Your task to perform on an android device: Go to settings Image 0: 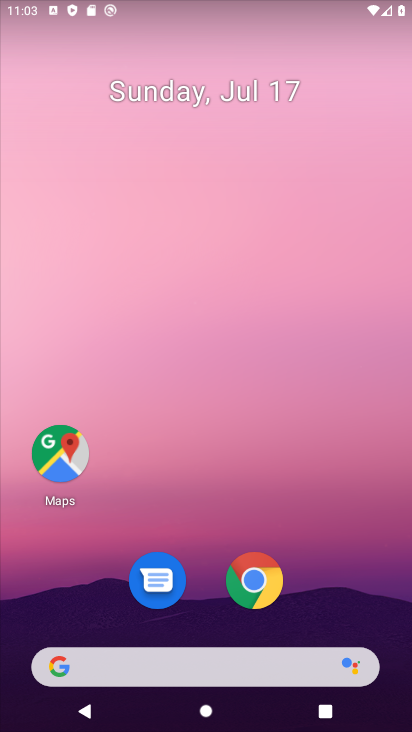
Step 0: drag from (222, 599) to (239, 224)
Your task to perform on an android device: Go to settings Image 1: 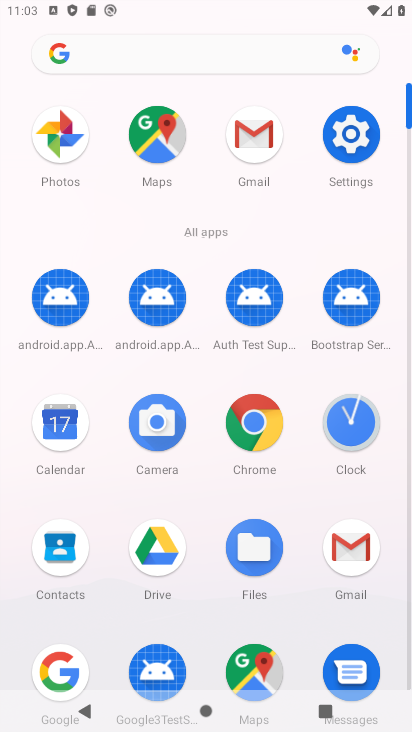
Step 1: click (347, 146)
Your task to perform on an android device: Go to settings Image 2: 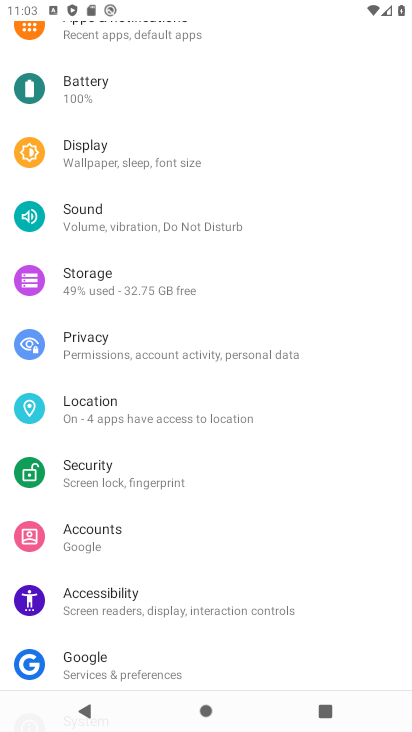
Step 2: task complete